Your task to perform on an android device: find photos in the google photos app Image 0: 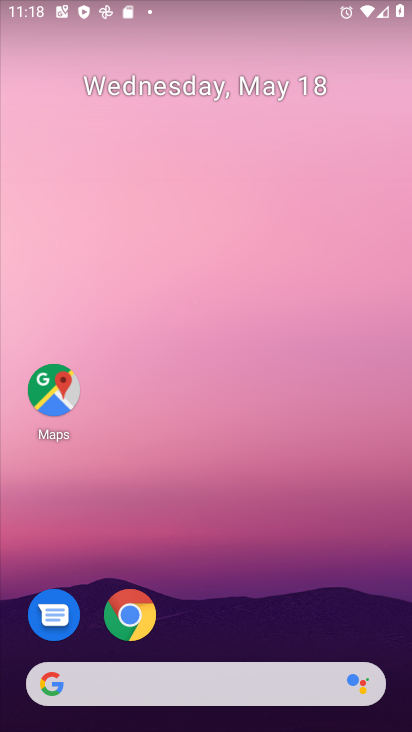
Step 0: drag from (224, 654) to (200, 382)
Your task to perform on an android device: find photos in the google photos app Image 1: 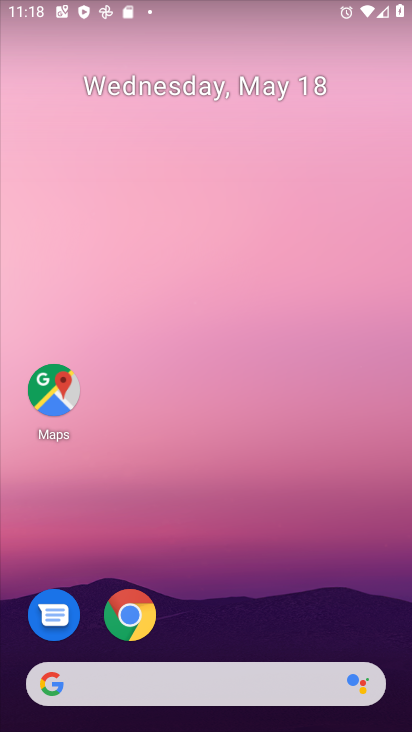
Step 1: drag from (227, 676) to (247, 217)
Your task to perform on an android device: find photos in the google photos app Image 2: 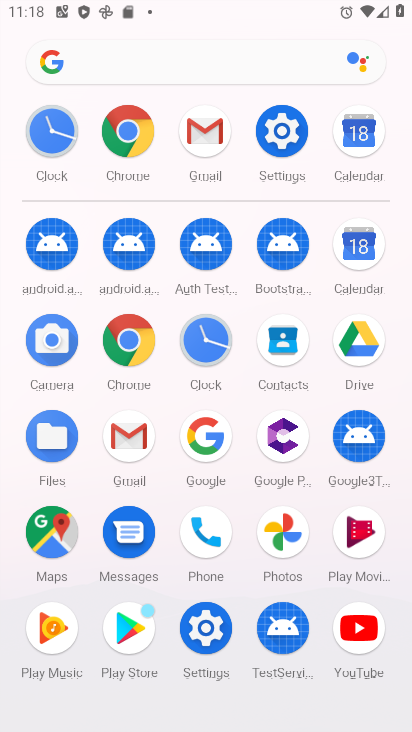
Step 2: click (282, 542)
Your task to perform on an android device: find photos in the google photos app Image 3: 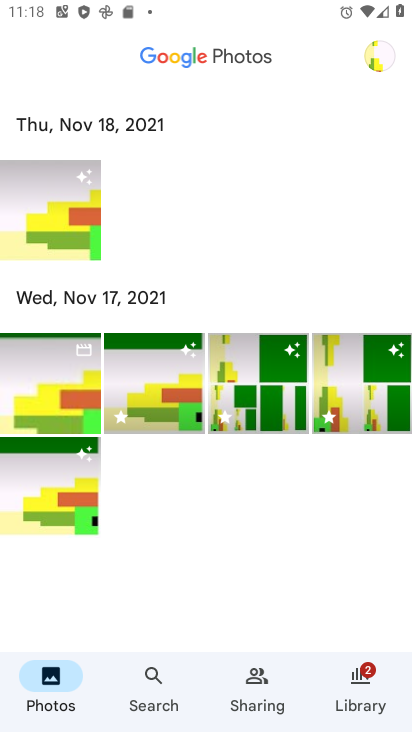
Step 3: click (154, 692)
Your task to perform on an android device: find photos in the google photos app Image 4: 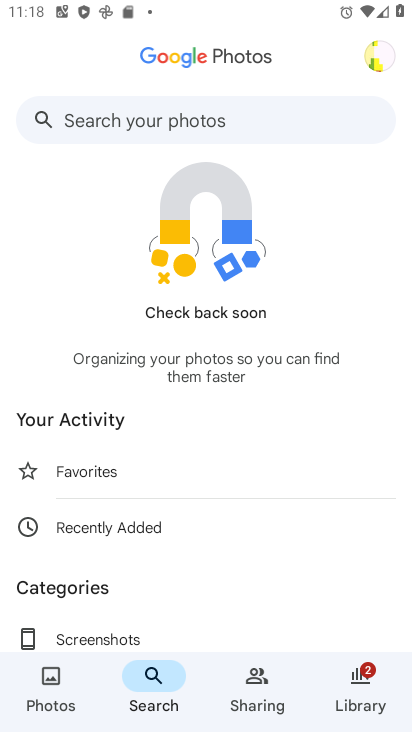
Step 4: click (189, 119)
Your task to perform on an android device: find photos in the google photos app Image 5: 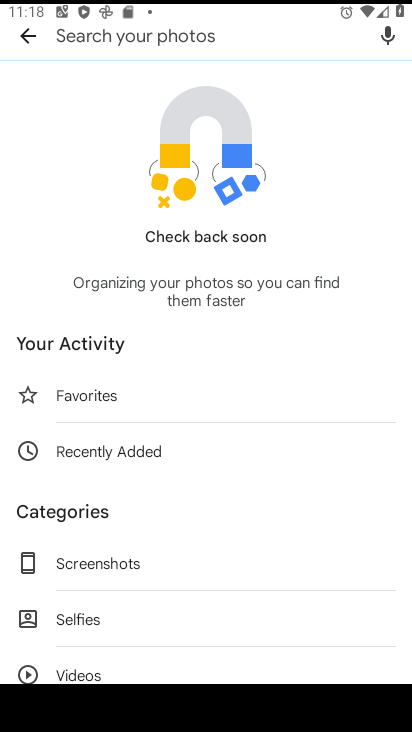
Step 5: type "album 09"
Your task to perform on an android device: find photos in the google photos app Image 6: 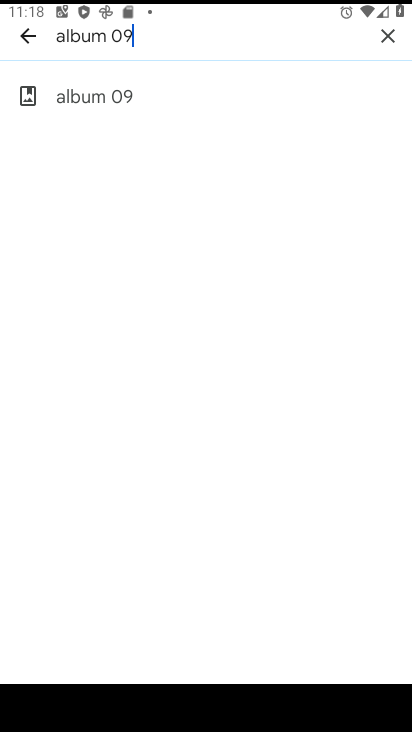
Step 6: click (109, 99)
Your task to perform on an android device: find photos in the google photos app Image 7: 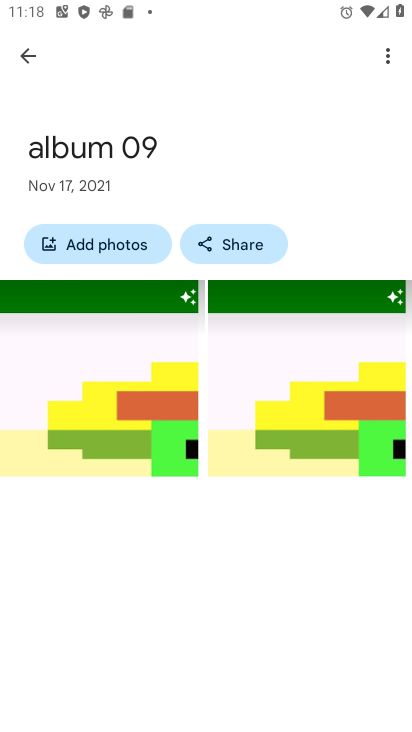
Step 7: task complete